Your task to perform on an android device: Do I have any events today? Image 0: 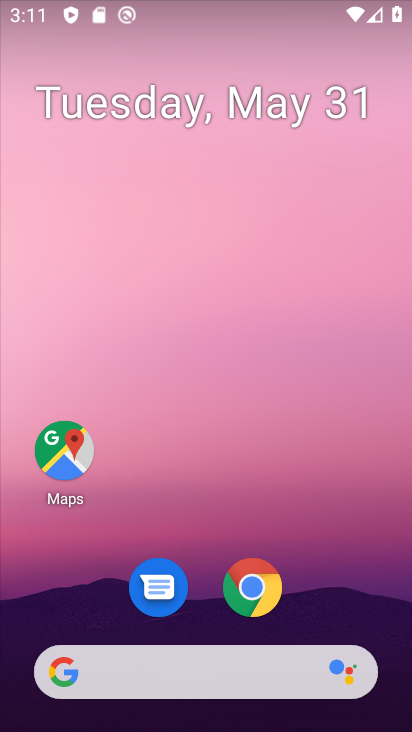
Step 0: drag from (317, 612) to (309, 0)
Your task to perform on an android device: Do I have any events today? Image 1: 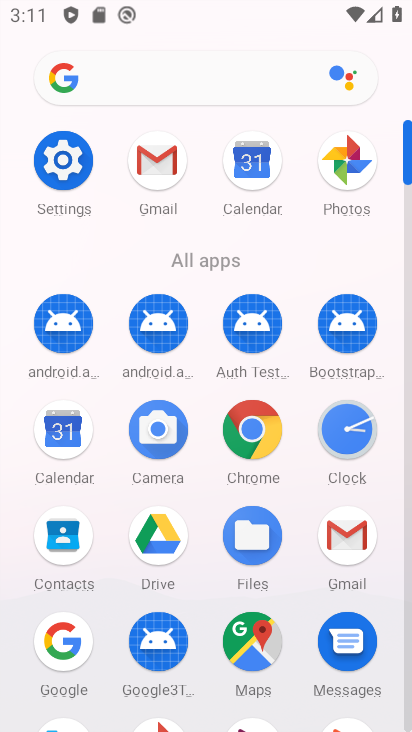
Step 1: click (58, 431)
Your task to perform on an android device: Do I have any events today? Image 2: 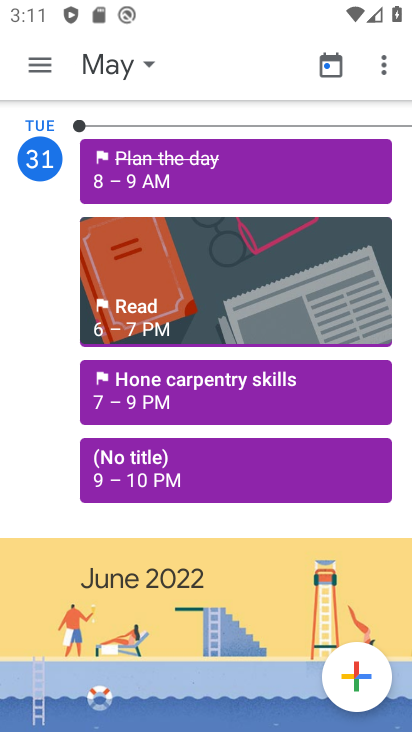
Step 2: task complete